Your task to perform on an android device: open app "Google Play Music" Image 0: 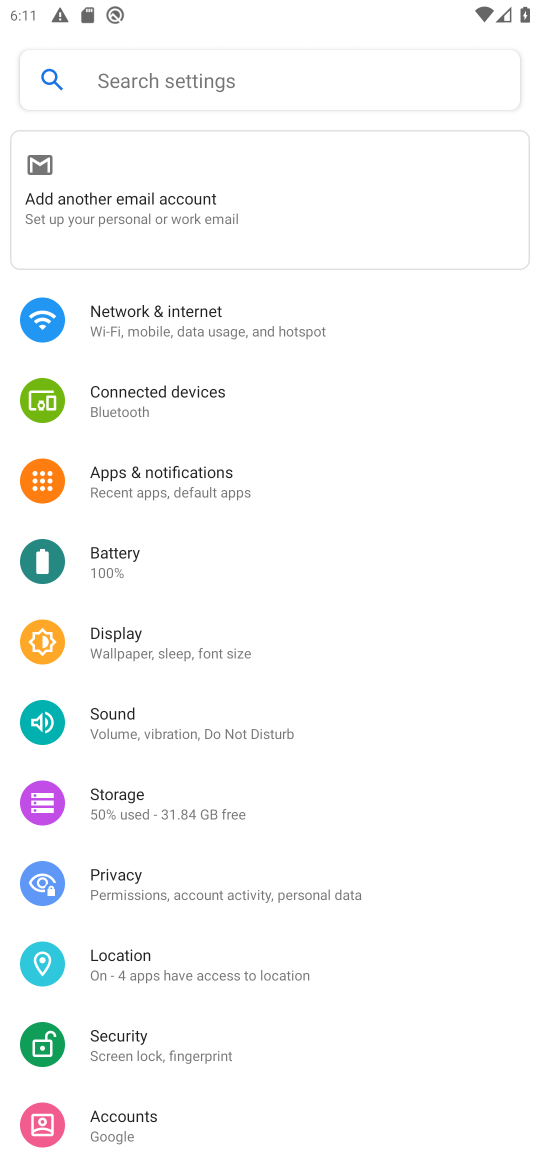
Step 0: press home button
Your task to perform on an android device: open app "Google Play Music" Image 1: 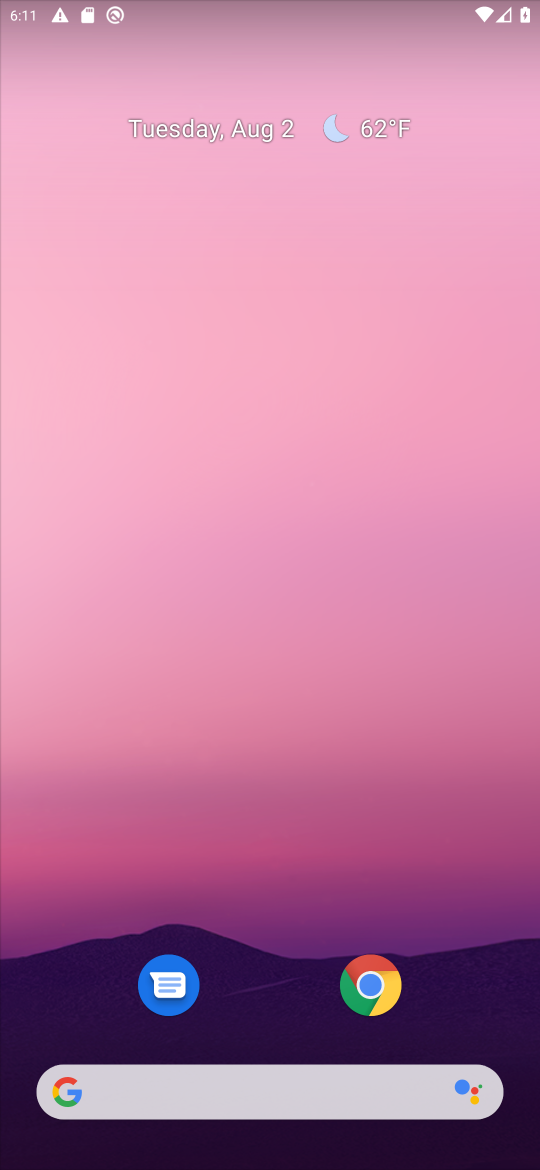
Step 1: drag from (253, 895) to (238, 189)
Your task to perform on an android device: open app "Google Play Music" Image 2: 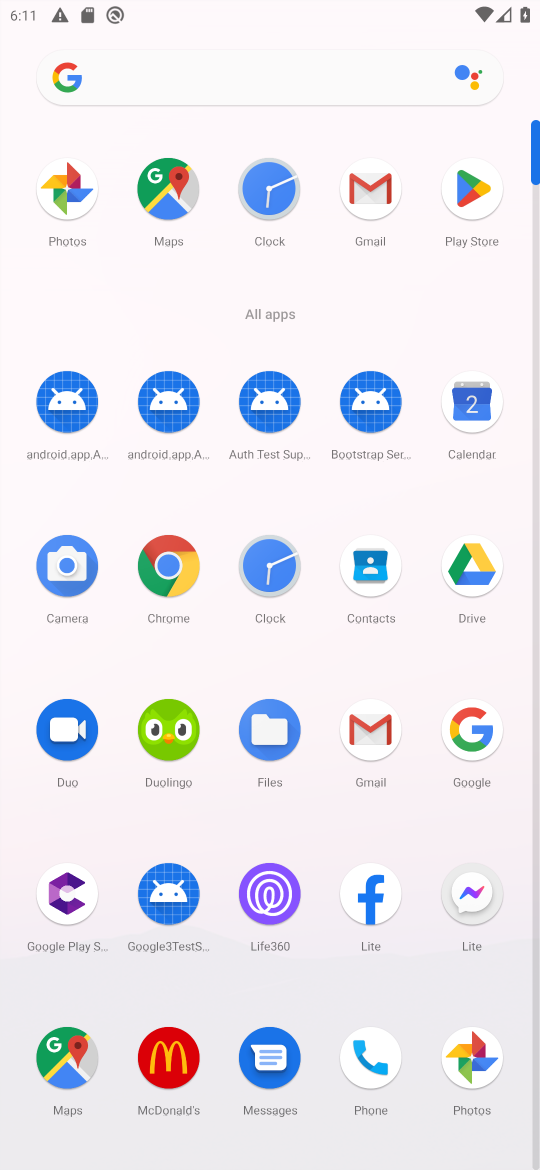
Step 2: click (470, 192)
Your task to perform on an android device: open app "Google Play Music" Image 3: 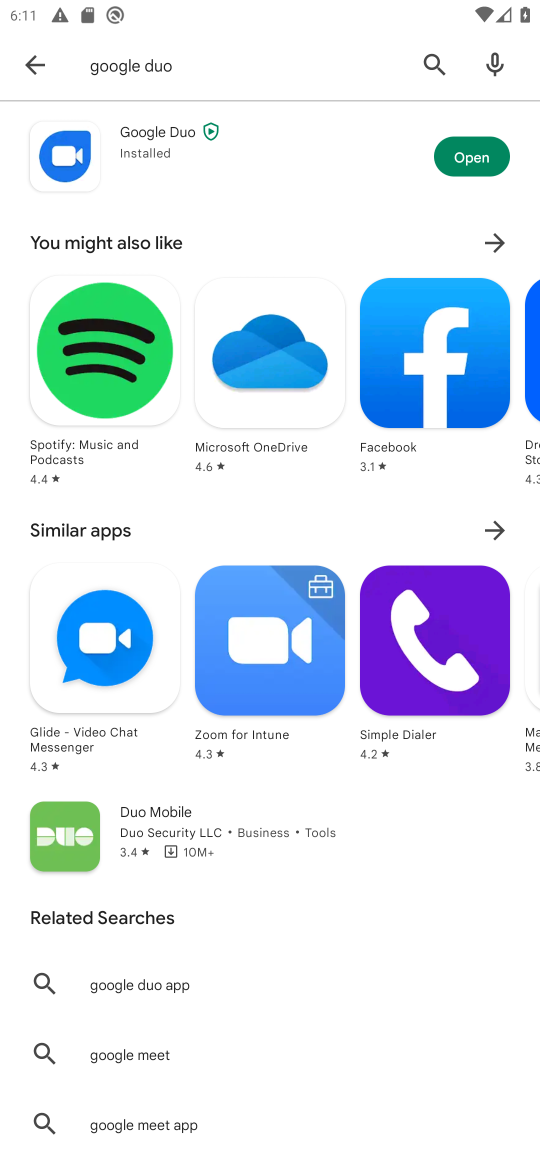
Step 3: click (299, 57)
Your task to perform on an android device: open app "Google Play Music" Image 4: 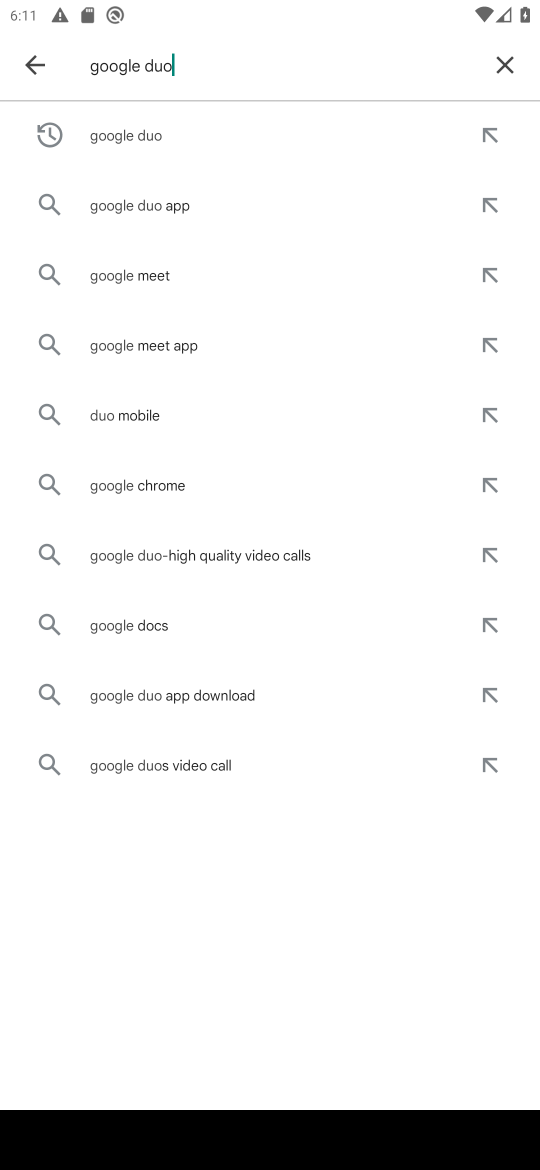
Step 4: click (501, 66)
Your task to perform on an android device: open app "Google Play Music" Image 5: 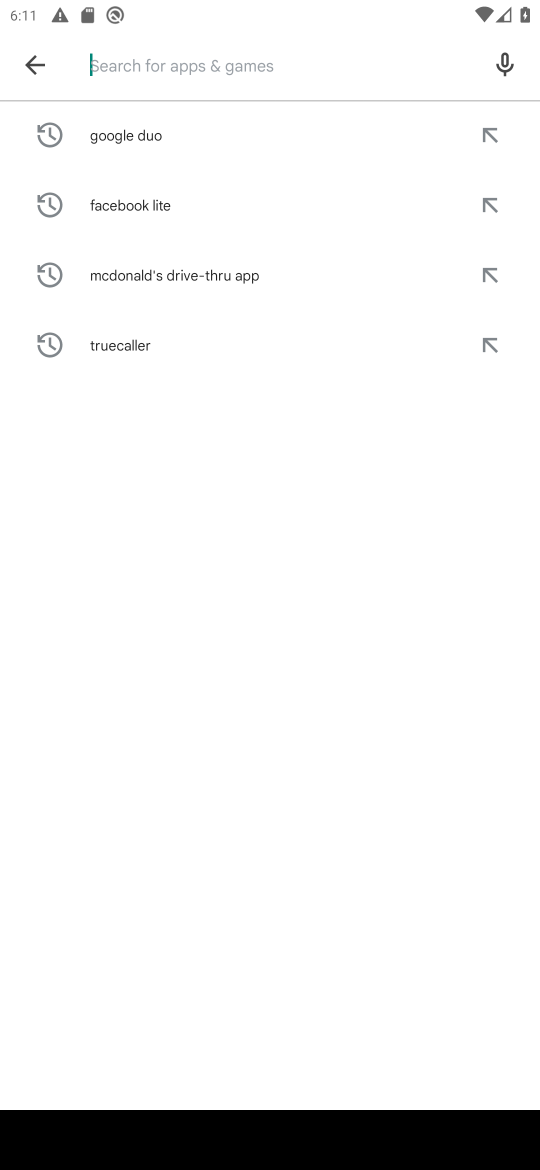
Step 5: type "Google Play Music"
Your task to perform on an android device: open app "Google Play Music" Image 6: 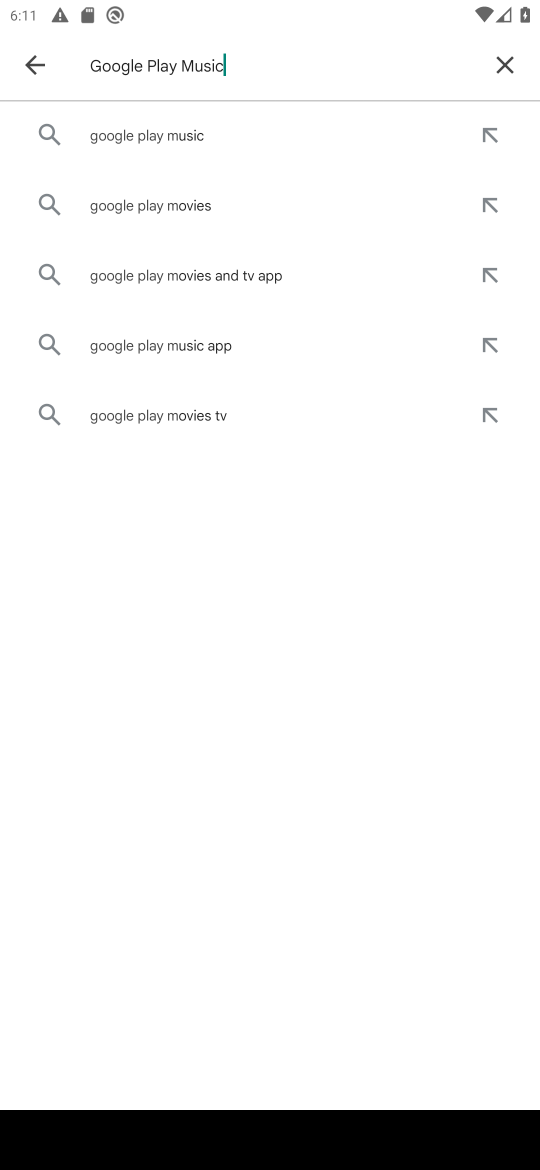
Step 6: type ""
Your task to perform on an android device: open app "Google Play Music" Image 7: 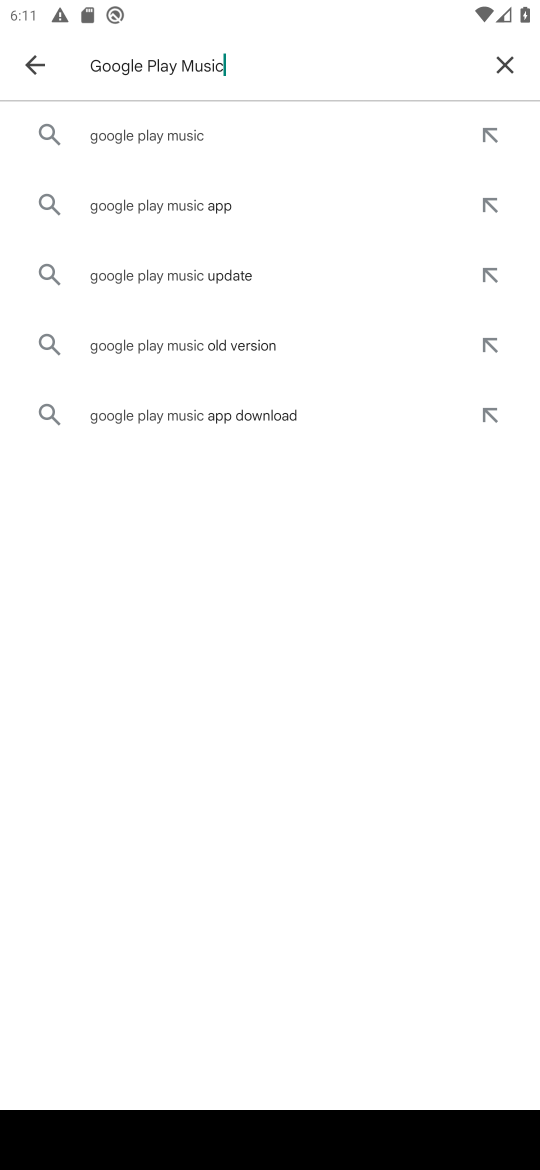
Step 7: click (191, 135)
Your task to perform on an android device: open app "Google Play Music" Image 8: 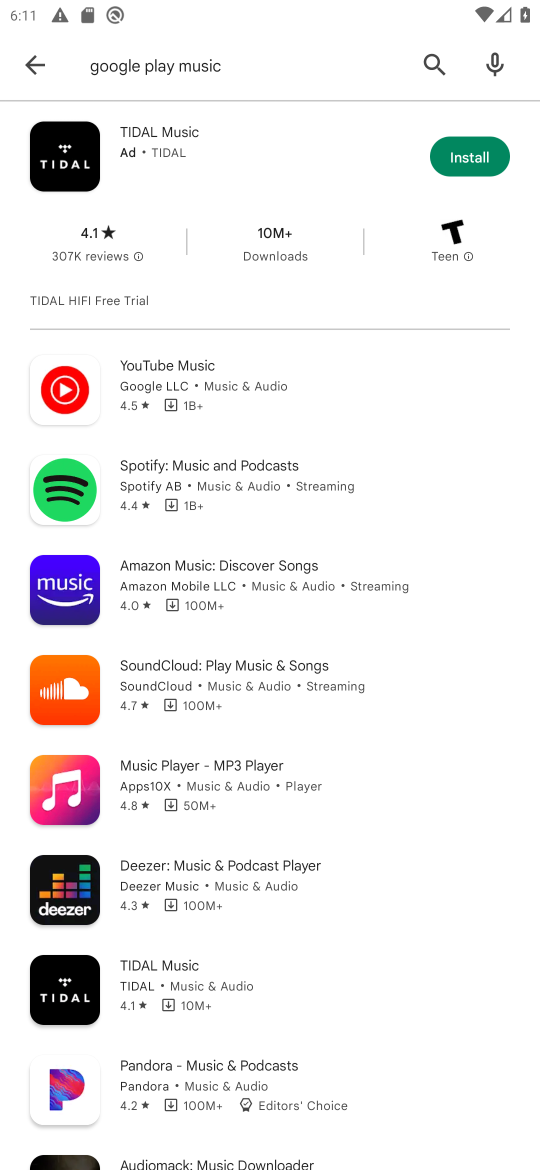
Step 8: task complete